Your task to perform on an android device: change the clock display to digital Image 0: 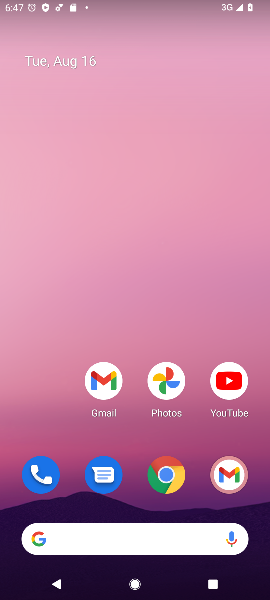
Step 0: drag from (205, 453) to (73, 36)
Your task to perform on an android device: change the clock display to digital Image 1: 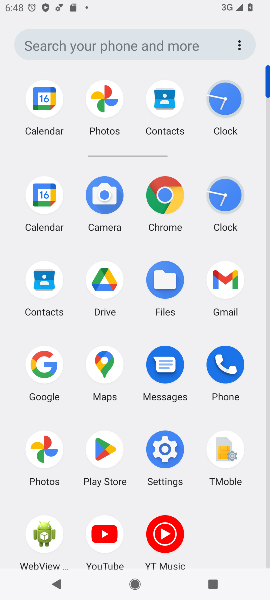
Step 1: click (227, 206)
Your task to perform on an android device: change the clock display to digital Image 2: 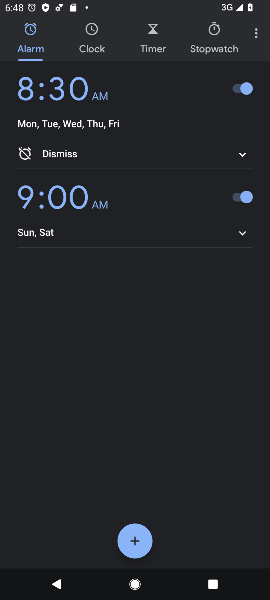
Step 2: click (249, 22)
Your task to perform on an android device: change the clock display to digital Image 3: 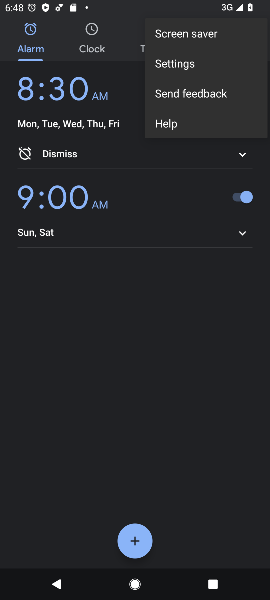
Step 3: click (176, 74)
Your task to perform on an android device: change the clock display to digital Image 4: 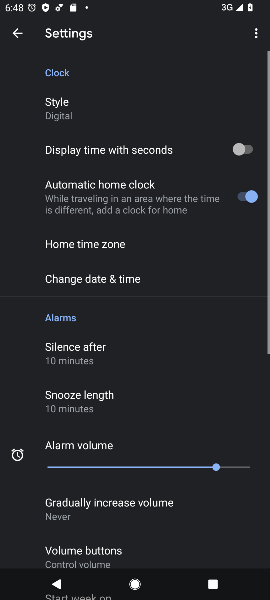
Step 4: click (52, 107)
Your task to perform on an android device: change the clock display to digital Image 5: 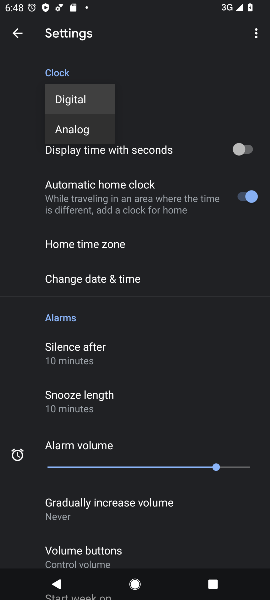
Step 5: click (77, 131)
Your task to perform on an android device: change the clock display to digital Image 6: 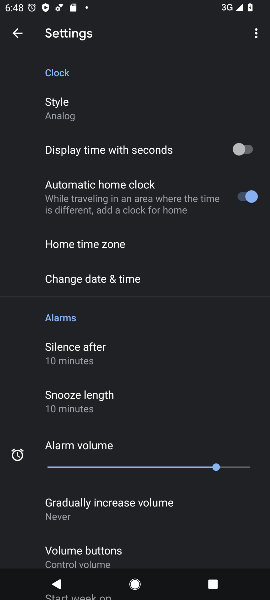
Step 6: click (66, 103)
Your task to perform on an android device: change the clock display to digital Image 7: 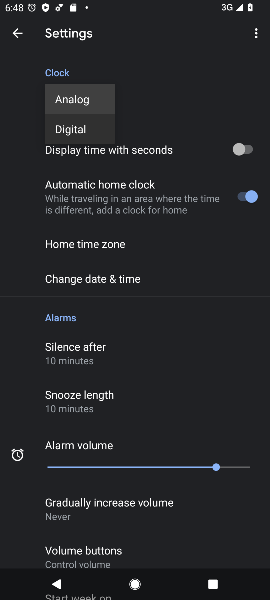
Step 7: click (78, 109)
Your task to perform on an android device: change the clock display to digital Image 8: 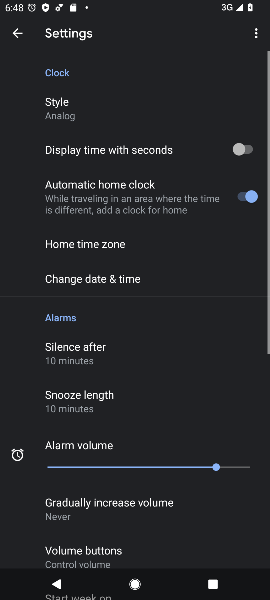
Step 8: click (78, 108)
Your task to perform on an android device: change the clock display to digital Image 9: 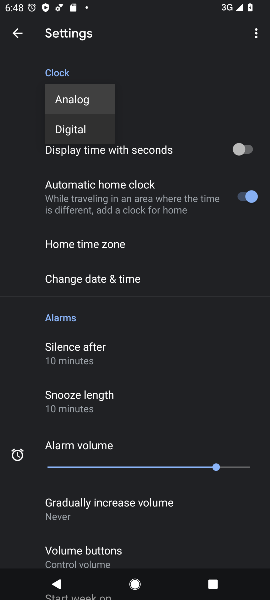
Step 9: click (78, 132)
Your task to perform on an android device: change the clock display to digital Image 10: 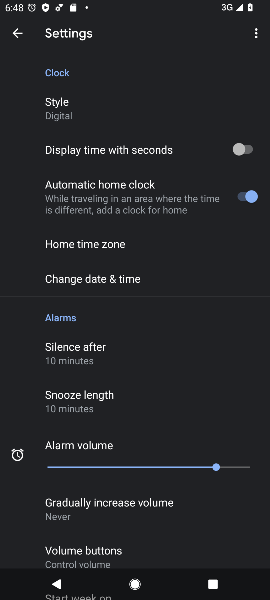
Step 10: task complete